Your task to perform on an android device: What's on my calendar today? Image 0: 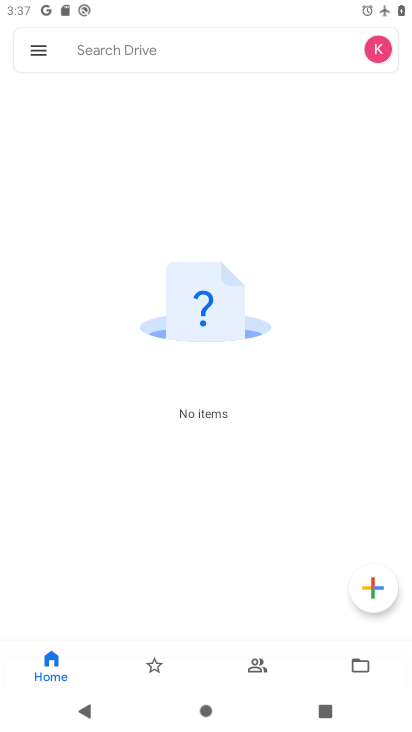
Step 0: press home button
Your task to perform on an android device: What's on my calendar today? Image 1: 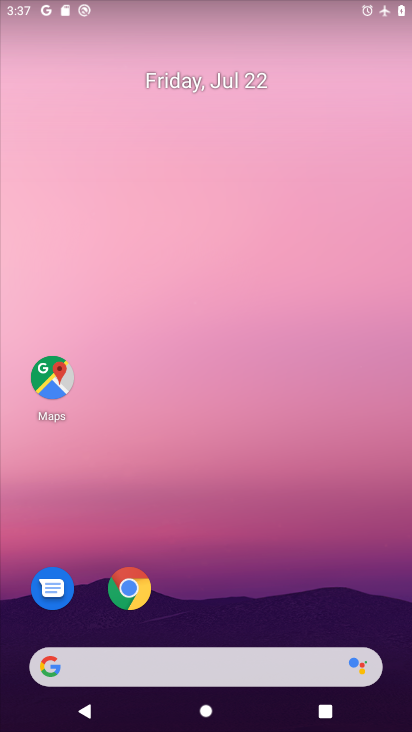
Step 1: drag from (301, 585) to (299, 103)
Your task to perform on an android device: What's on my calendar today? Image 2: 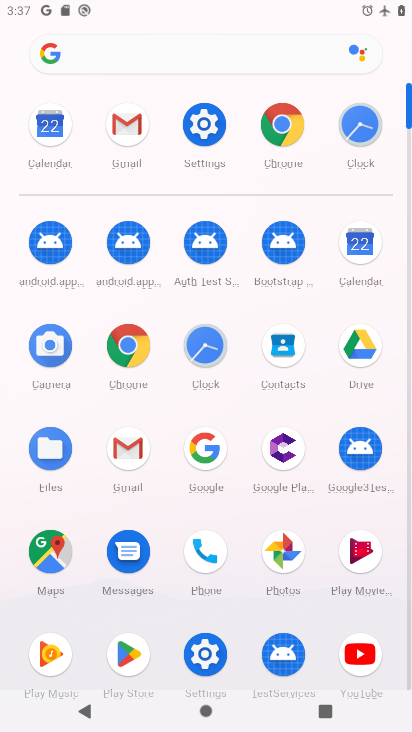
Step 2: click (367, 244)
Your task to perform on an android device: What's on my calendar today? Image 3: 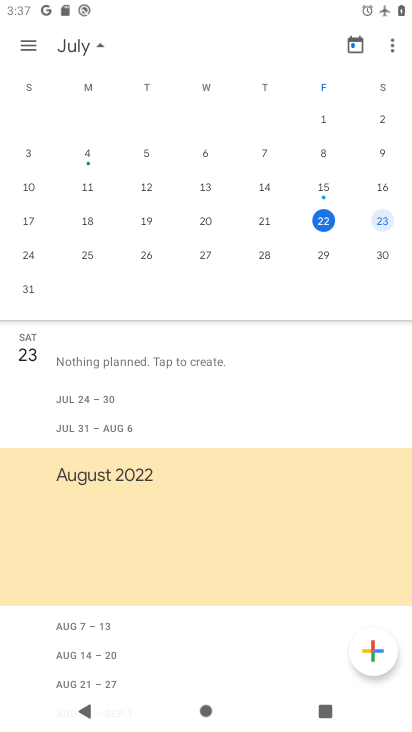
Step 3: click (319, 214)
Your task to perform on an android device: What's on my calendar today? Image 4: 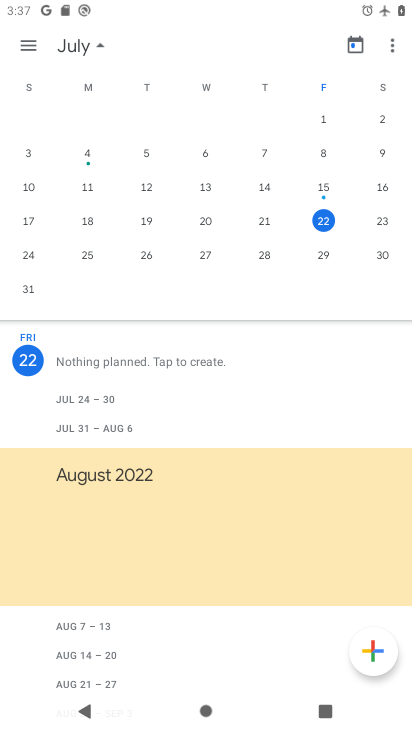
Step 4: task complete